Your task to perform on an android device: turn off notifications in google photos Image 0: 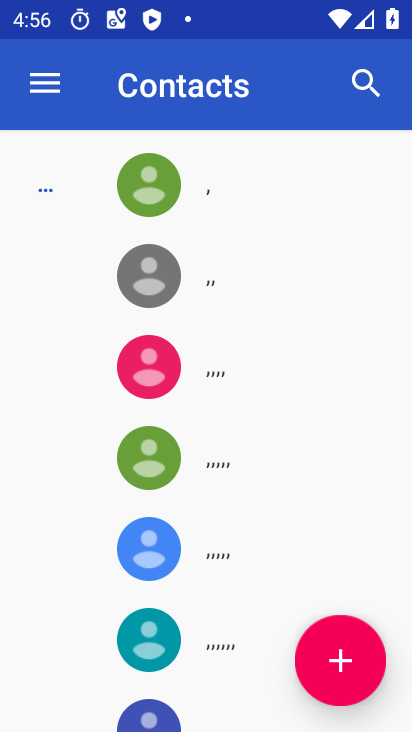
Step 0: press home button
Your task to perform on an android device: turn off notifications in google photos Image 1: 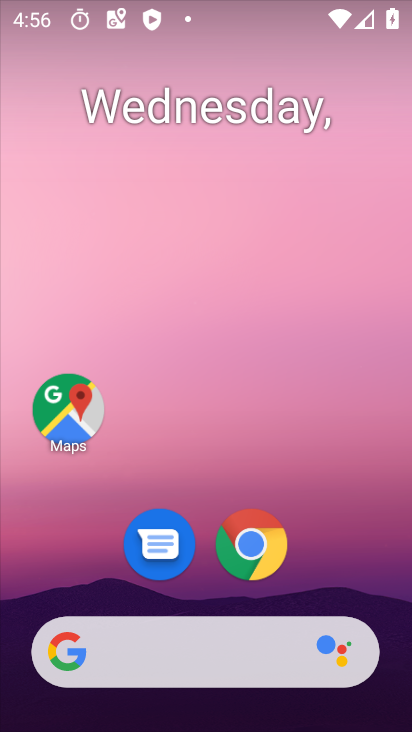
Step 1: drag from (185, 639) to (398, 20)
Your task to perform on an android device: turn off notifications in google photos Image 2: 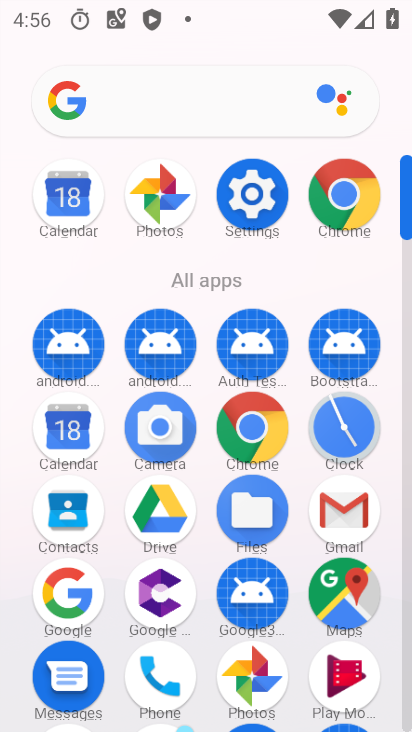
Step 2: click (275, 667)
Your task to perform on an android device: turn off notifications in google photos Image 3: 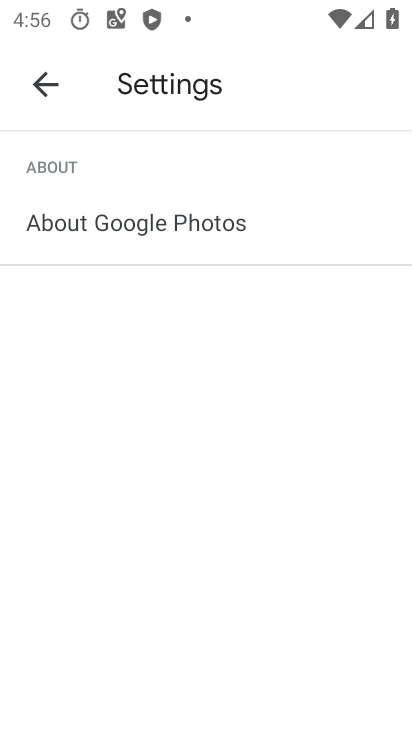
Step 3: click (48, 74)
Your task to perform on an android device: turn off notifications in google photos Image 4: 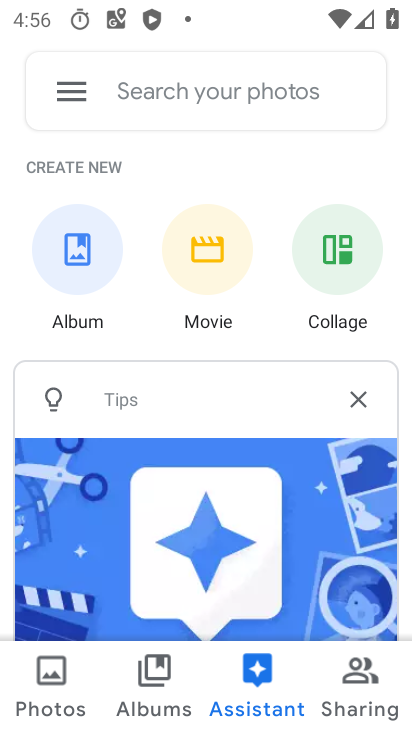
Step 4: click (48, 74)
Your task to perform on an android device: turn off notifications in google photos Image 5: 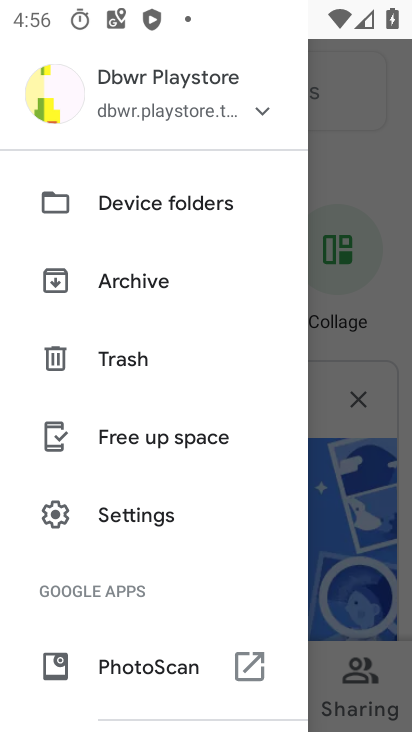
Step 5: click (136, 540)
Your task to perform on an android device: turn off notifications in google photos Image 6: 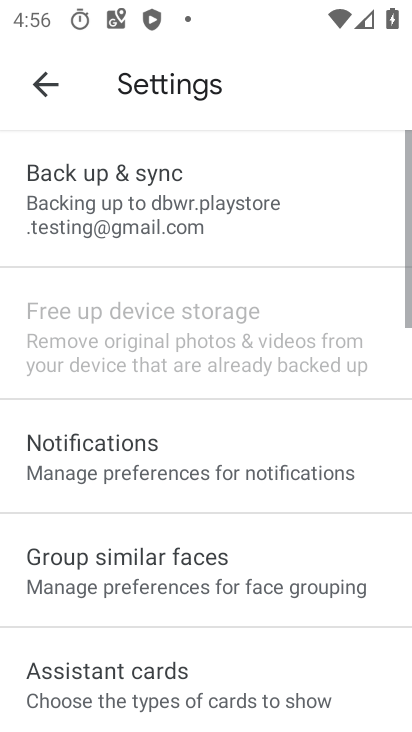
Step 6: click (117, 465)
Your task to perform on an android device: turn off notifications in google photos Image 7: 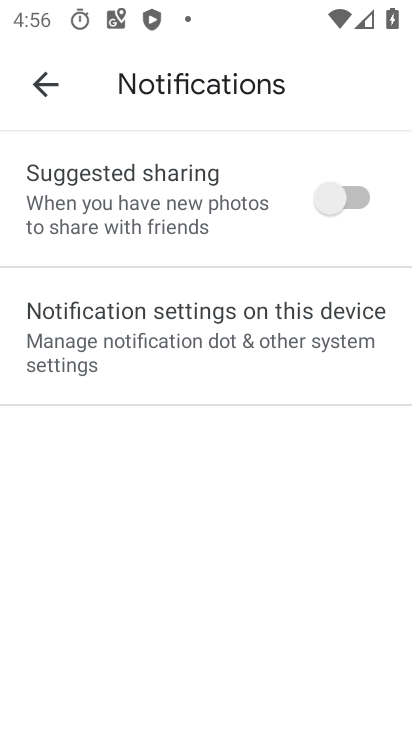
Step 7: click (286, 345)
Your task to perform on an android device: turn off notifications in google photos Image 8: 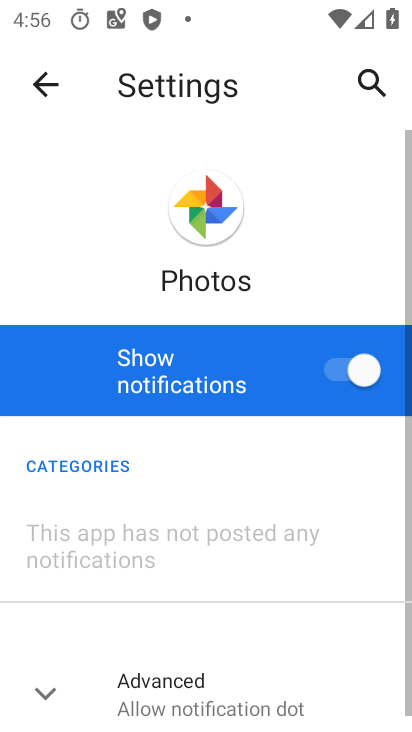
Step 8: click (359, 371)
Your task to perform on an android device: turn off notifications in google photos Image 9: 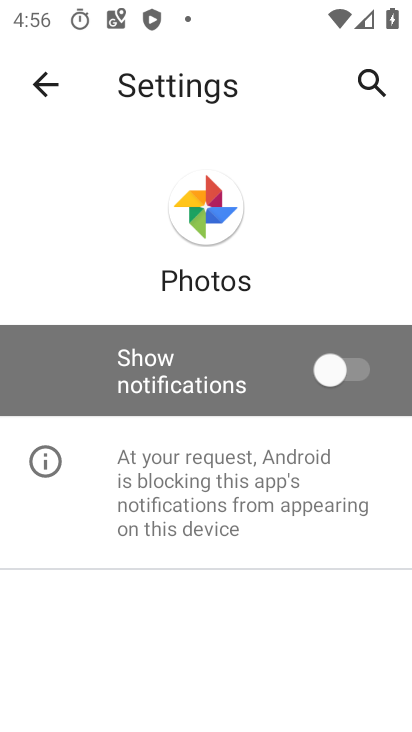
Step 9: task complete